Your task to perform on an android device: Open the stopwatch Image 0: 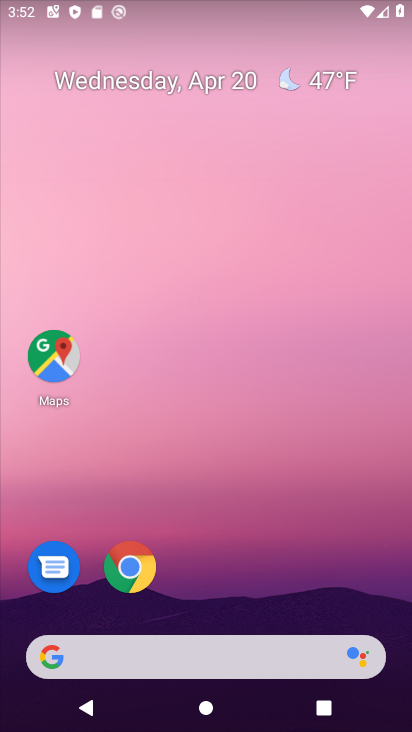
Step 0: drag from (153, 619) to (282, 1)
Your task to perform on an android device: Open the stopwatch Image 1: 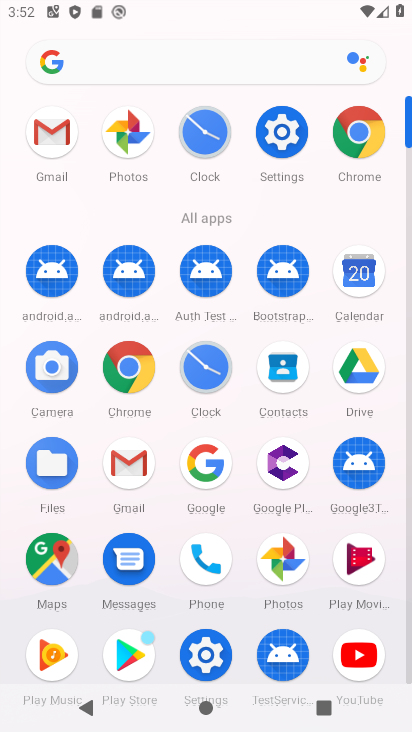
Step 1: click (212, 379)
Your task to perform on an android device: Open the stopwatch Image 2: 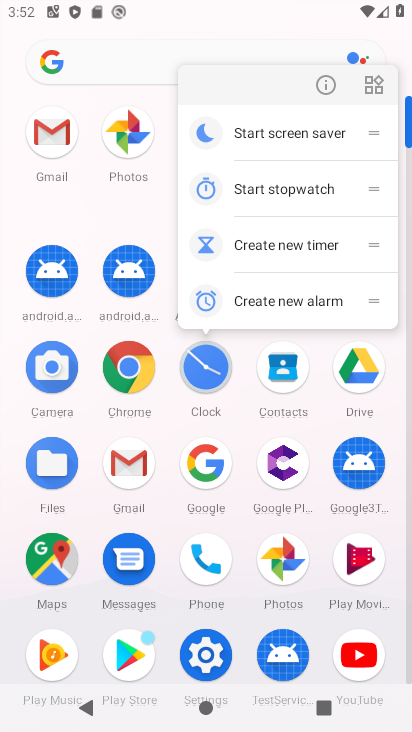
Step 2: click (204, 365)
Your task to perform on an android device: Open the stopwatch Image 3: 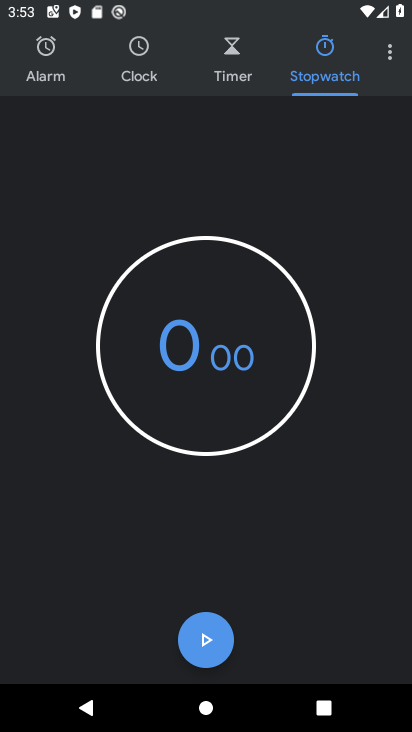
Step 3: task complete